Your task to perform on an android device: Open calendar and show me the second week of next month Image 0: 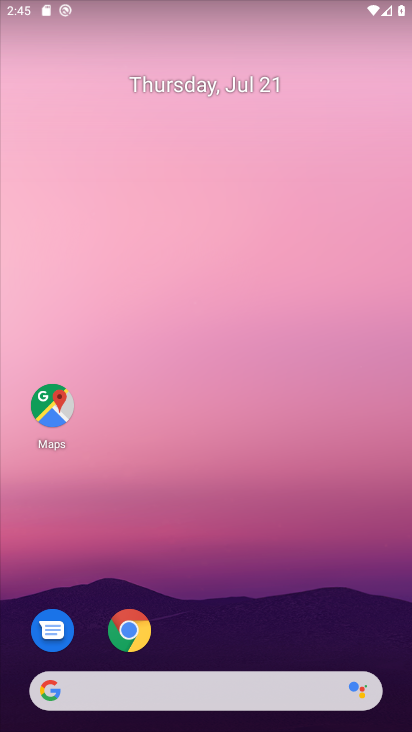
Step 0: drag from (314, 657) to (255, 150)
Your task to perform on an android device: Open calendar and show me the second week of next month Image 1: 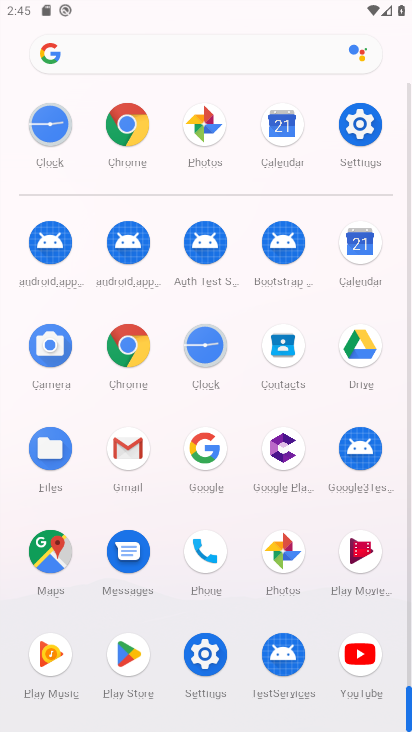
Step 1: click (363, 246)
Your task to perform on an android device: Open calendar and show me the second week of next month Image 2: 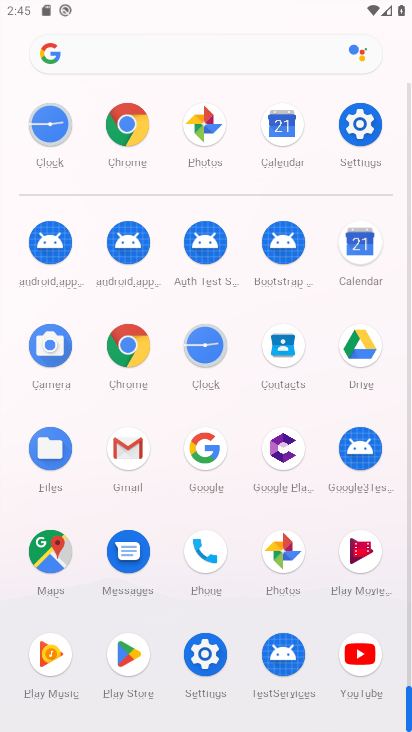
Step 2: click (366, 241)
Your task to perform on an android device: Open calendar and show me the second week of next month Image 3: 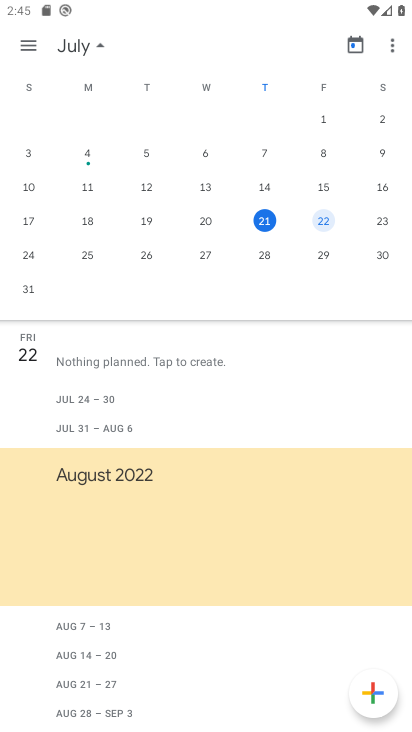
Step 3: click (312, 211)
Your task to perform on an android device: Open calendar and show me the second week of next month Image 4: 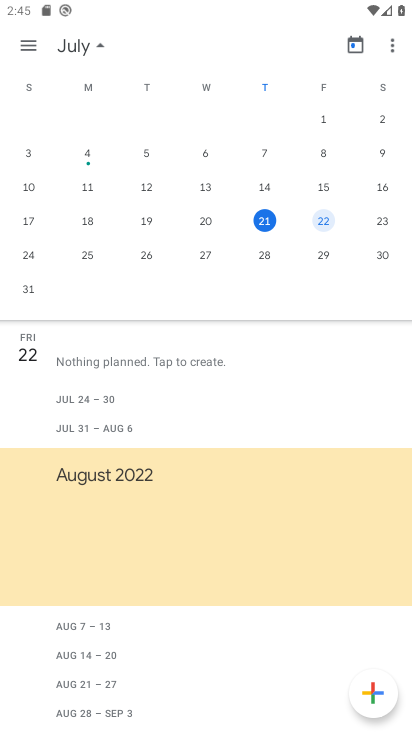
Step 4: click (314, 213)
Your task to perform on an android device: Open calendar and show me the second week of next month Image 5: 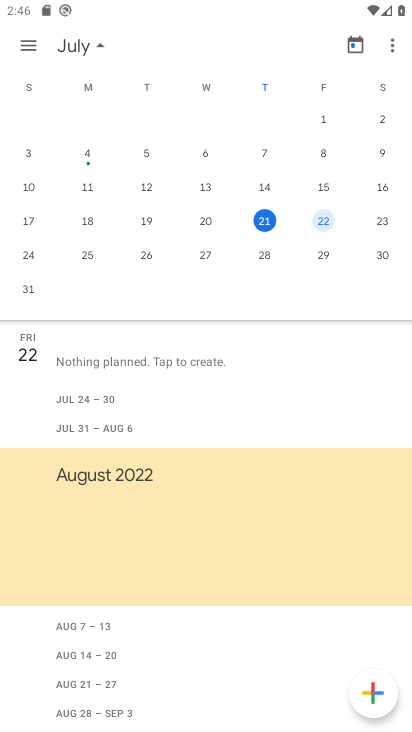
Step 5: task complete